Your task to perform on an android device: Open eBay Image 0: 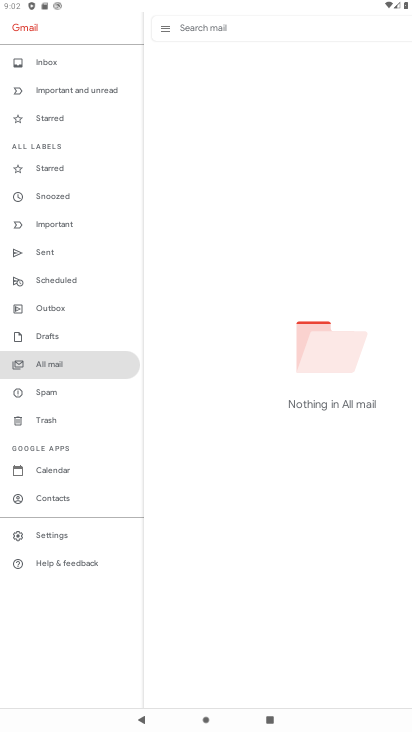
Step 0: press home button
Your task to perform on an android device: Open eBay Image 1: 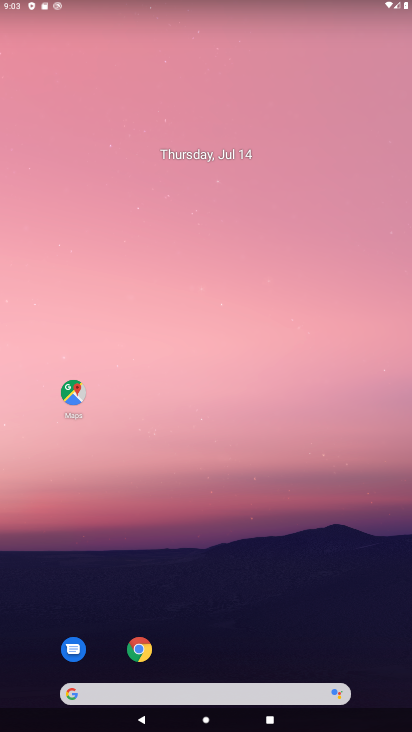
Step 1: drag from (191, 608) to (229, 0)
Your task to perform on an android device: Open eBay Image 2: 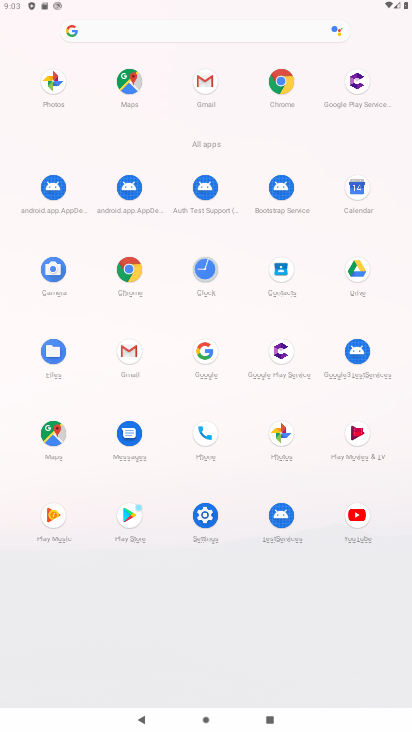
Step 2: click (283, 82)
Your task to perform on an android device: Open eBay Image 3: 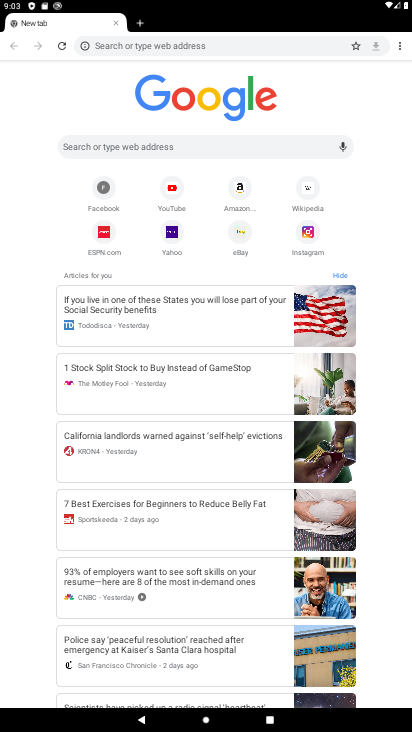
Step 3: click (233, 238)
Your task to perform on an android device: Open eBay Image 4: 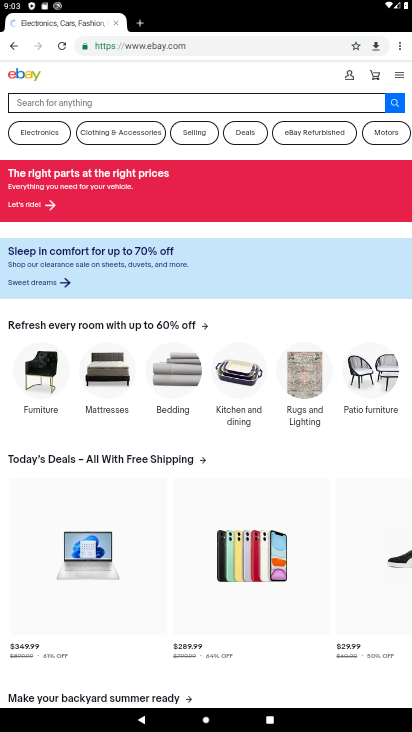
Step 4: task complete